Your task to perform on an android device: Do I have any events this weekend? Image 0: 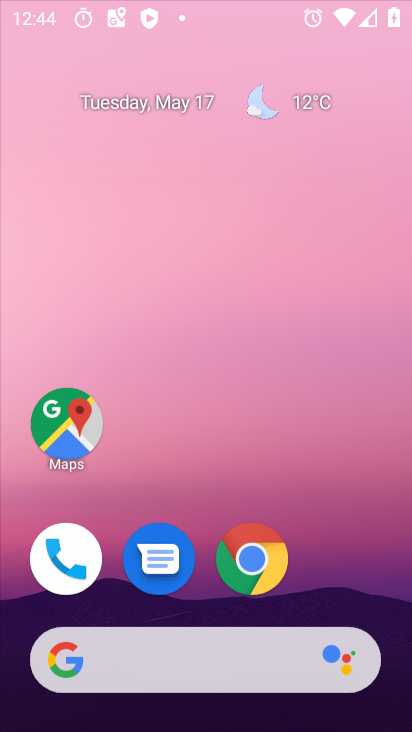
Step 0: click (350, 140)
Your task to perform on an android device: Do I have any events this weekend? Image 1: 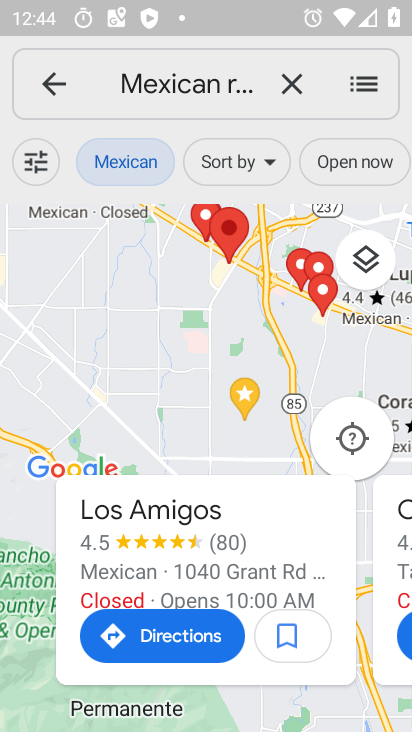
Step 1: press home button
Your task to perform on an android device: Do I have any events this weekend? Image 2: 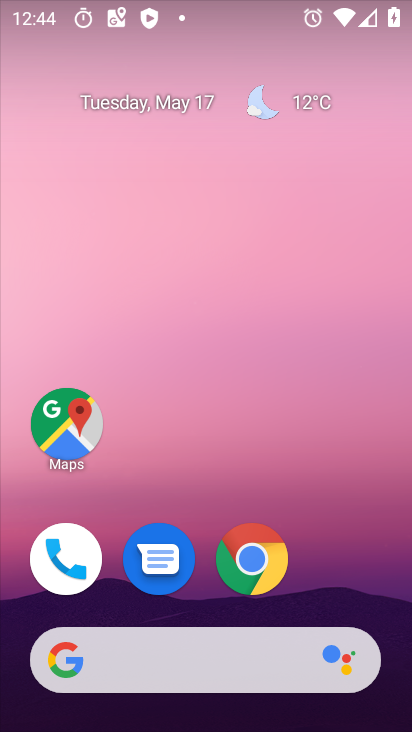
Step 2: drag from (338, 552) to (339, 50)
Your task to perform on an android device: Do I have any events this weekend? Image 3: 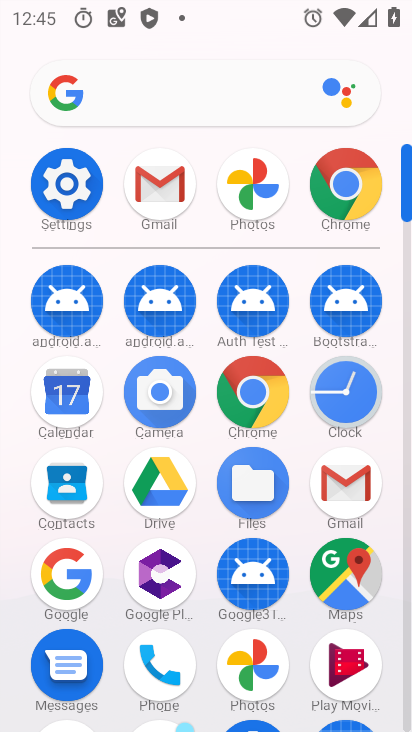
Step 3: click (60, 405)
Your task to perform on an android device: Do I have any events this weekend? Image 4: 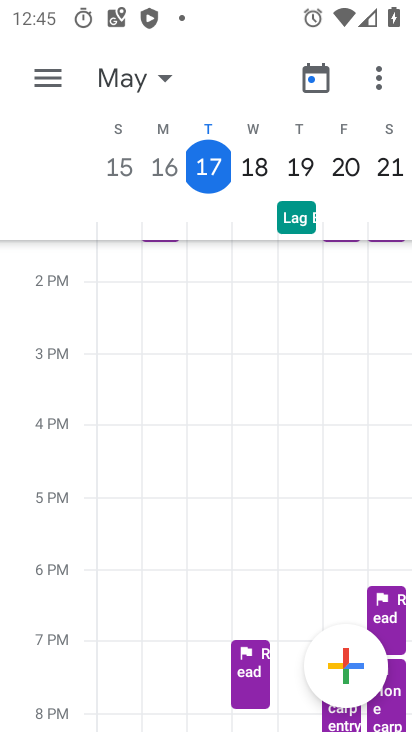
Step 4: drag from (348, 159) to (163, 142)
Your task to perform on an android device: Do I have any events this weekend? Image 5: 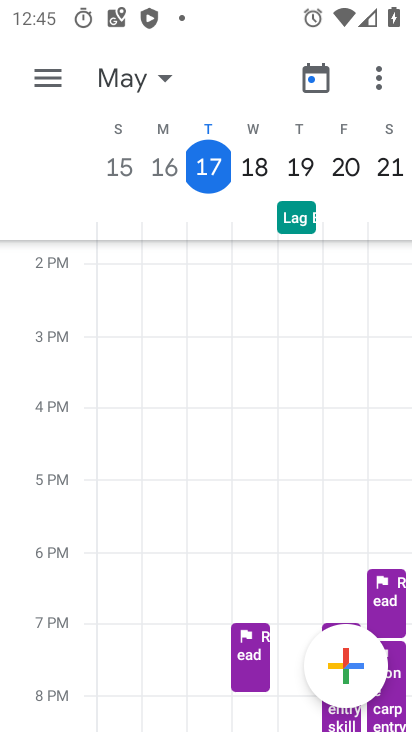
Step 5: click (60, 73)
Your task to perform on an android device: Do I have any events this weekend? Image 6: 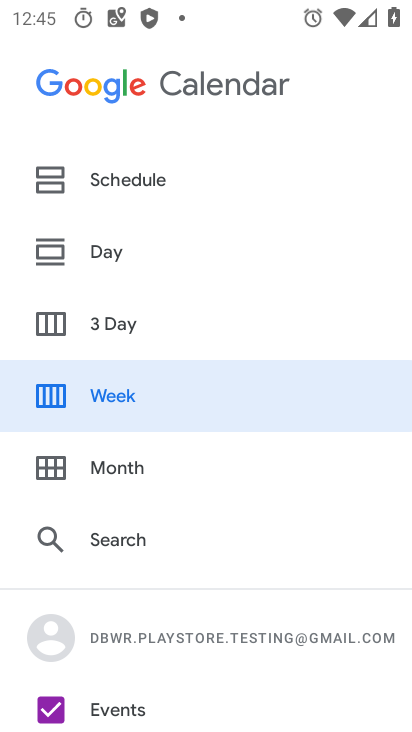
Step 6: click (109, 322)
Your task to perform on an android device: Do I have any events this weekend? Image 7: 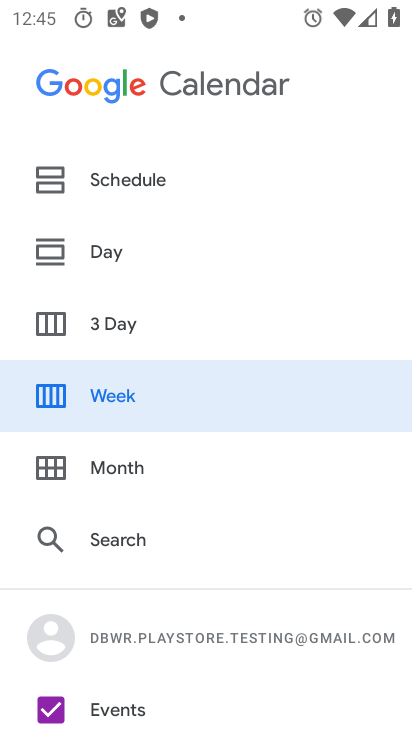
Step 7: click (143, 329)
Your task to perform on an android device: Do I have any events this weekend? Image 8: 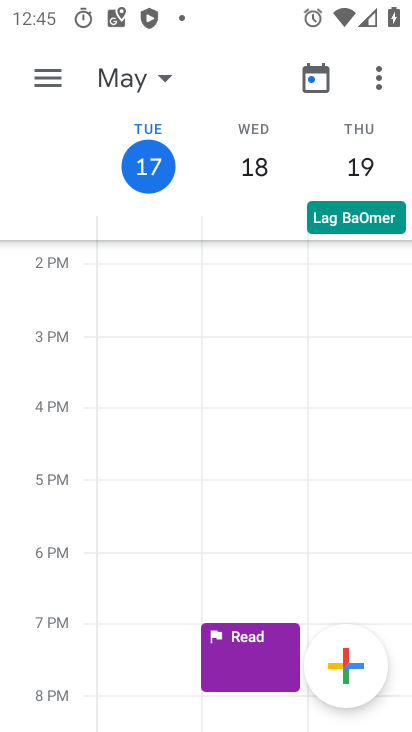
Step 8: task complete